Your task to perform on an android device: Open Google Chrome Image 0: 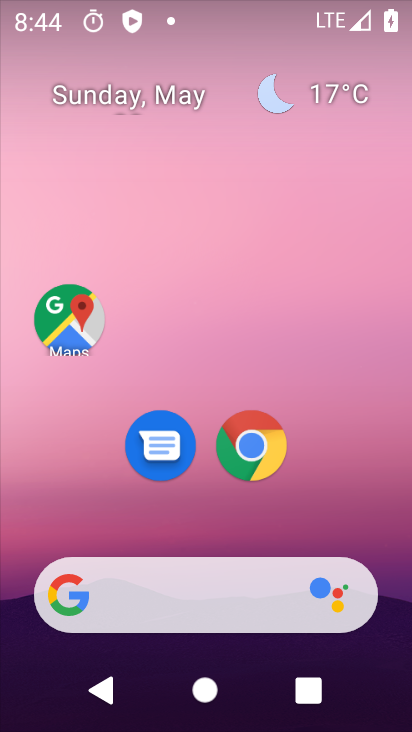
Step 0: click (411, 150)
Your task to perform on an android device: Open Google Chrome Image 1: 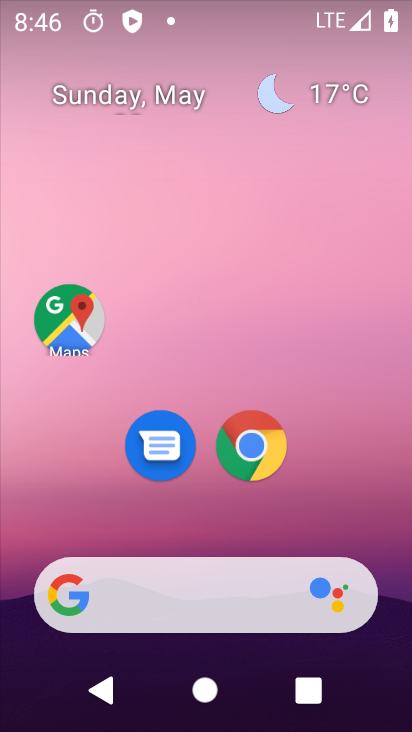
Step 1: click (254, 434)
Your task to perform on an android device: Open Google Chrome Image 2: 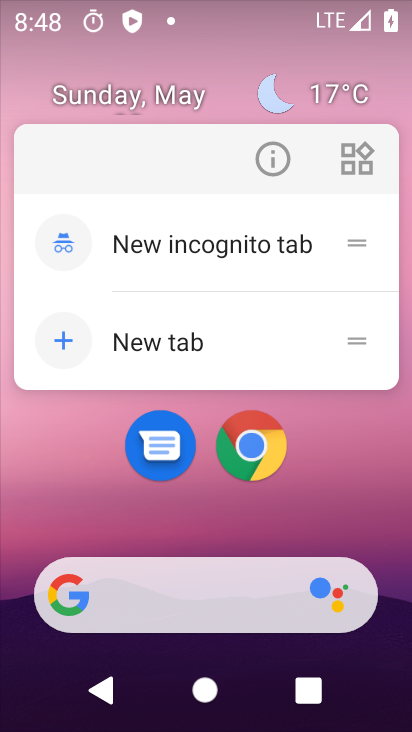
Step 2: click (285, 148)
Your task to perform on an android device: Open Google Chrome Image 3: 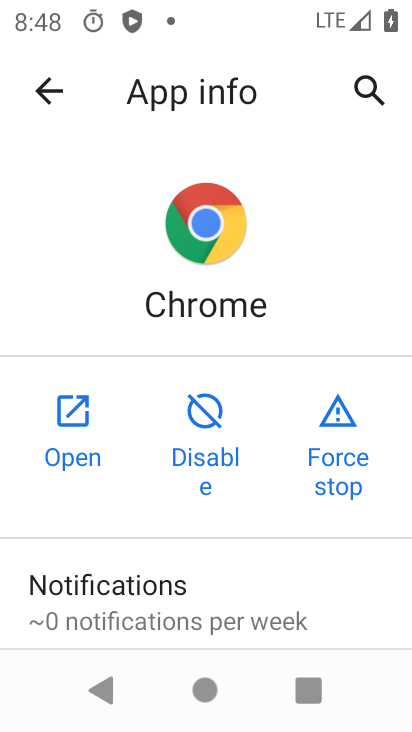
Step 3: click (70, 430)
Your task to perform on an android device: Open Google Chrome Image 4: 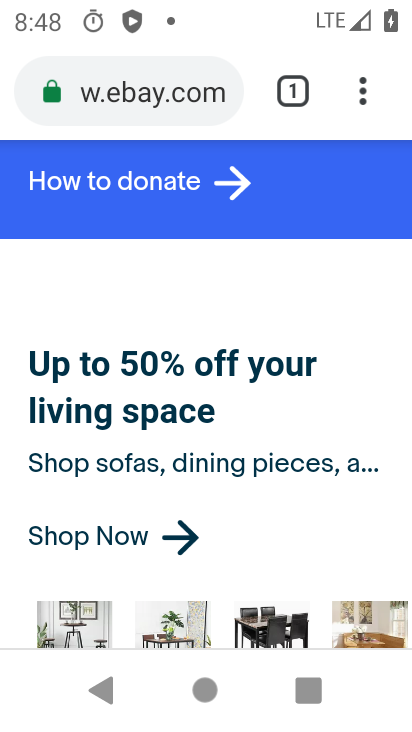
Step 4: task complete